Your task to perform on an android device: Go to Maps Image 0: 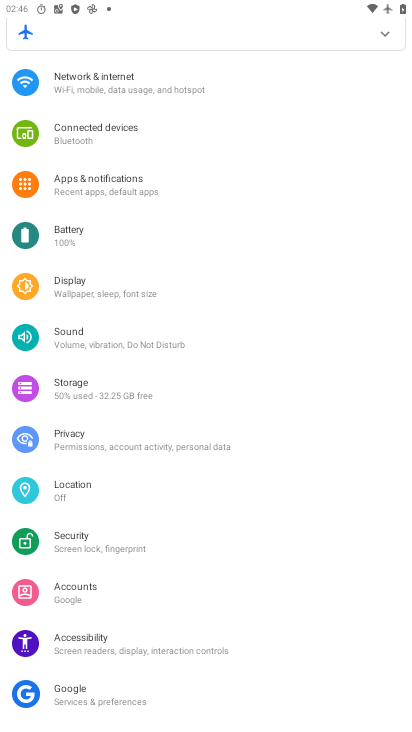
Step 0: press home button
Your task to perform on an android device: Go to Maps Image 1: 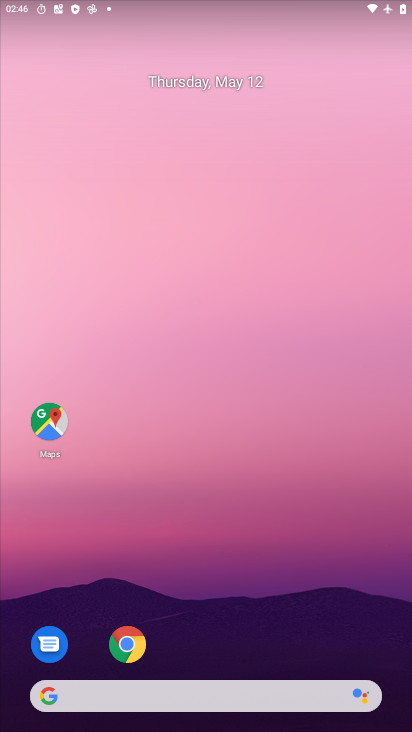
Step 1: click (39, 423)
Your task to perform on an android device: Go to Maps Image 2: 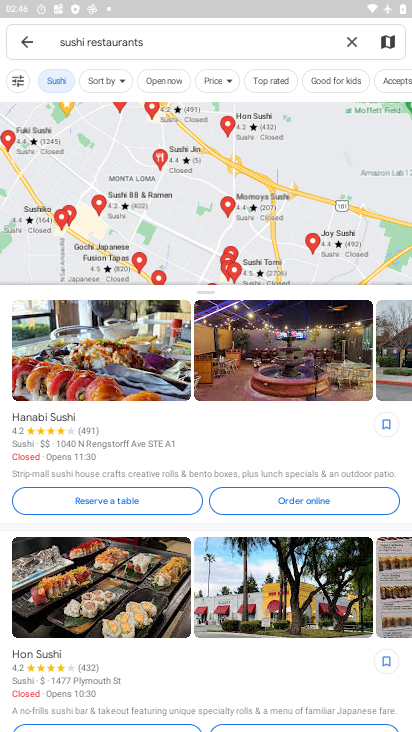
Step 2: task complete